Your task to perform on an android device: Is it going to rain this weekend? Image 0: 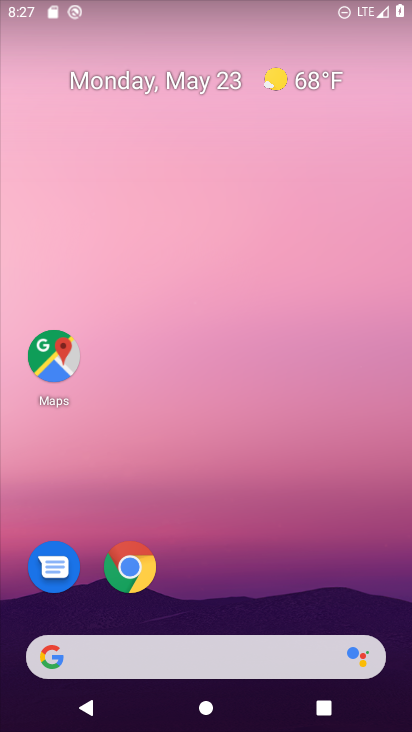
Step 0: click (345, 64)
Your task to perform on an android device: Is it going to rain this weekend? Image 1: 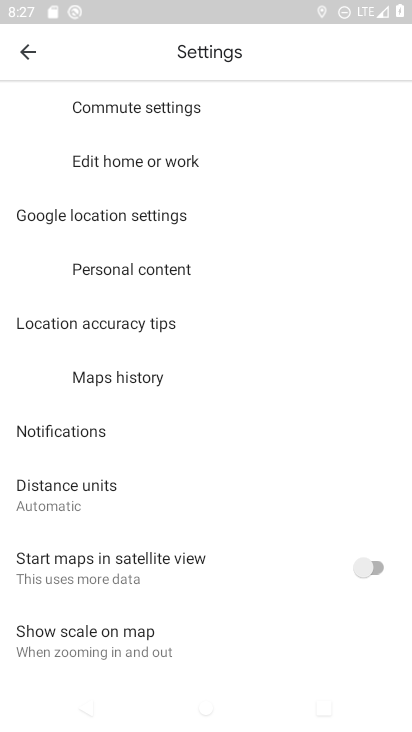
Step 1: drag from (224, 537) to (325, 152)
Your task to perform on an android device: Is it going to rain this weekend? Image 2: 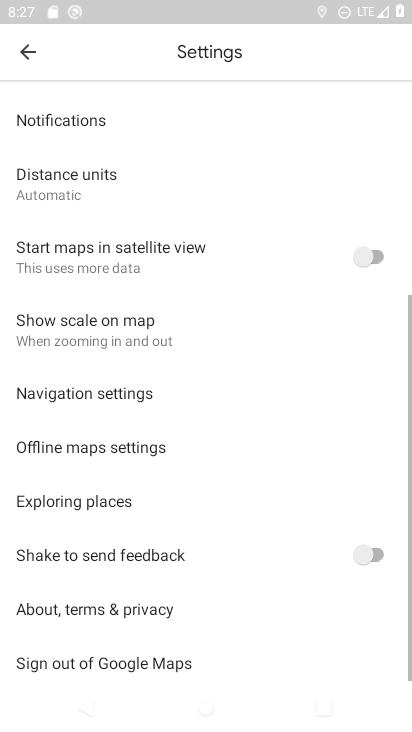
Step 2: drag from (329, 137) to (330, 719)
Your task to perform on an android device: Is it going to rain this weekend? Image 3: 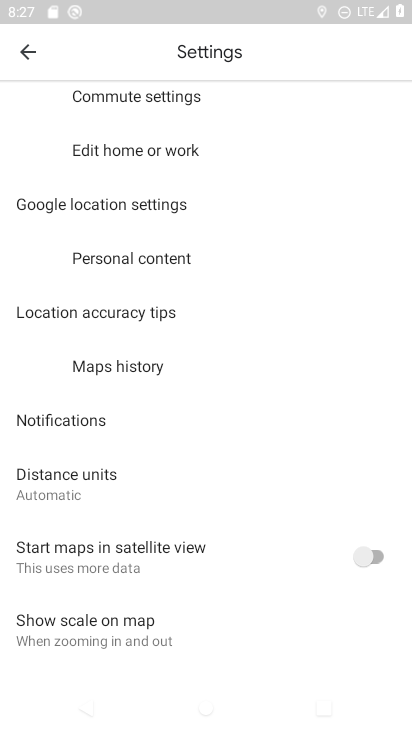
Step 3: click (22, 58)
Your task to perform on an android device: Is it going to rain this weekend? Image 4: 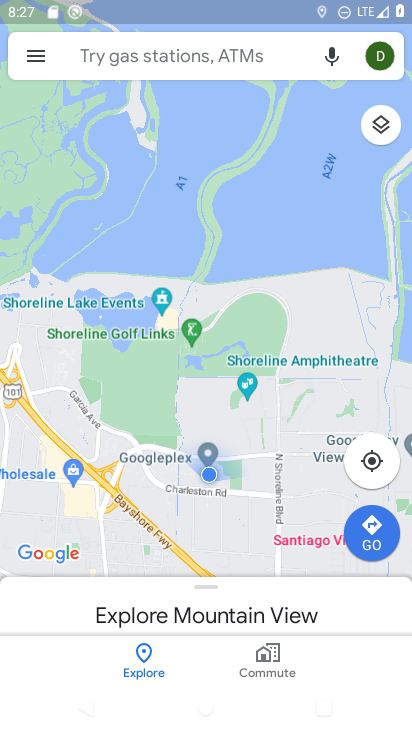
Step 4: press home button
Your task to perform on an android device: Is it going to rain this weekend? Image 5: 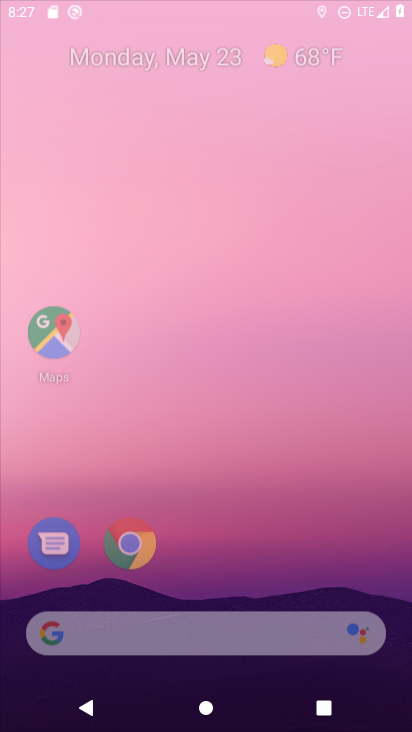
Step 5: drag from (123, 577) to (325, 63)
Your task to perform on an android device: Is it going to rain this weekend? Image 6: 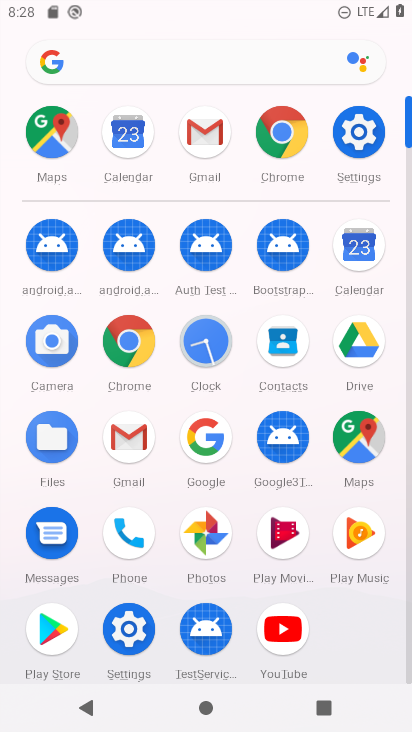
Step 6: click (136, 64)
Your task to perform on an android device: Is it going to rain this weekend? Image 7: 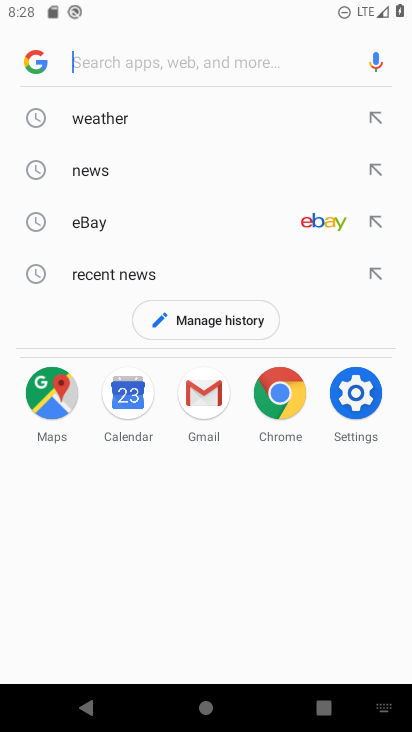
Step 7: type "Is it going to rain this weekend?"
Your task to perform on an android device: Is it going to rain this weekend? Image 8: 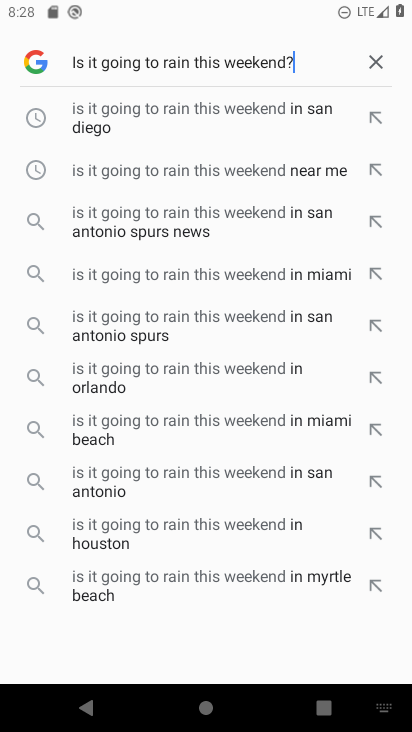
Step 8: click (102, 144)
Your task to perform on an android device: Is it going to rain this weekend? Image 9: 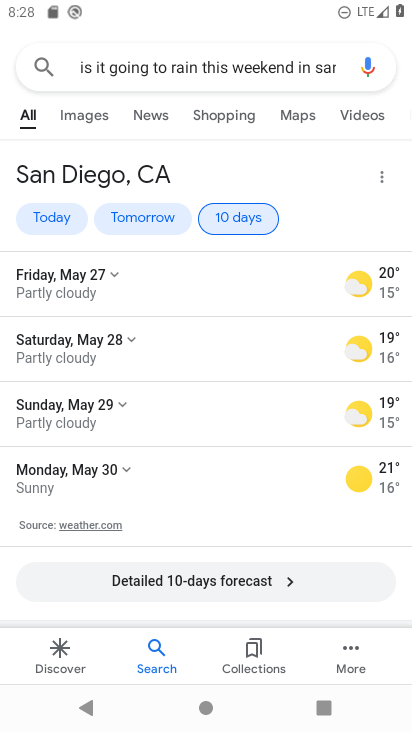
Step 9: task complete